Your task to perform on an android device: Open the stopwatch Image 0: 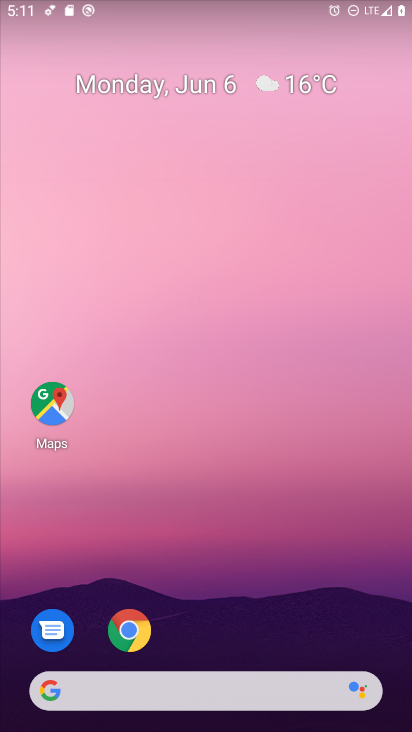
Step 0: drag from (252, 489) to (59, 1)
Your task to perform on an android device: Open the stopwatch Image 1: 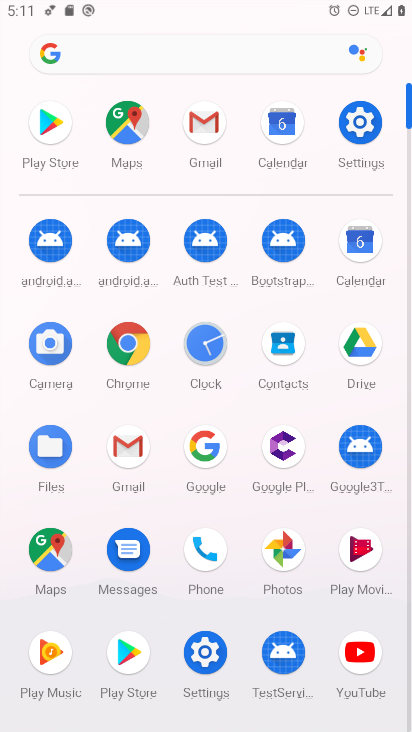
Step 1: click (199, 348)
Your task to perform on an android device: Open the stopwatch Image 2: 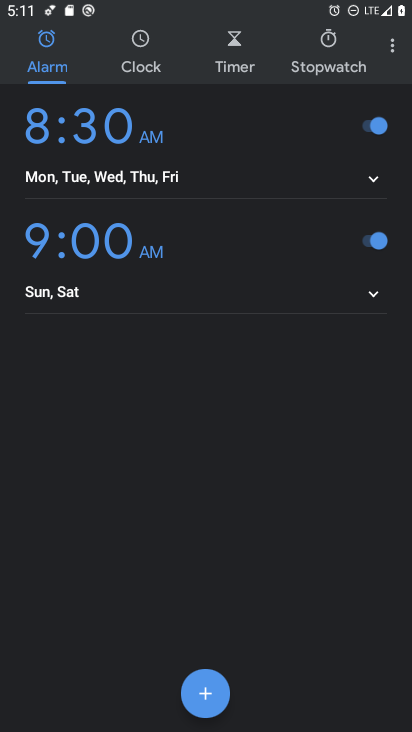
Step 2: click (330, 39)
Your task to perform on an android device: Open the stopwatch Image 3: 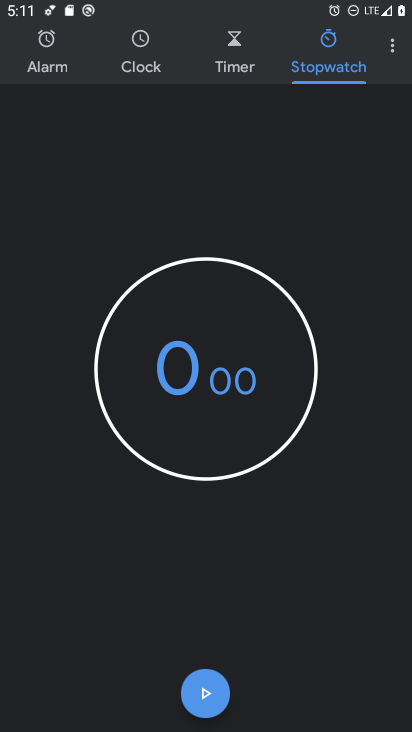
Step 3: task complete